Your task to perform on an android device: change the clock style Image 0: 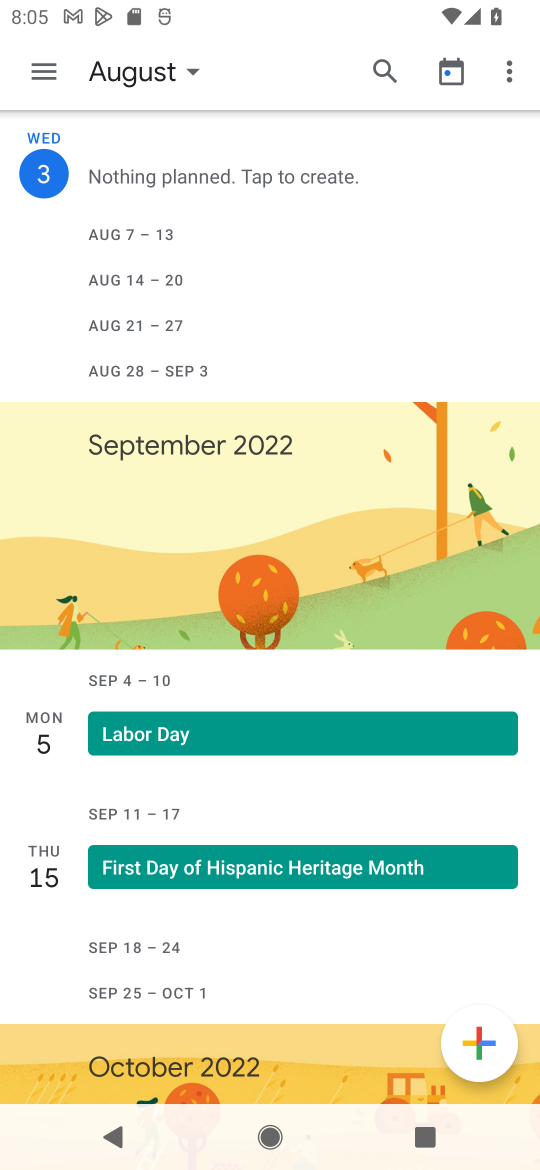
Step 0: press home button
Your task to perform on an android device: change the clock style Image 1: 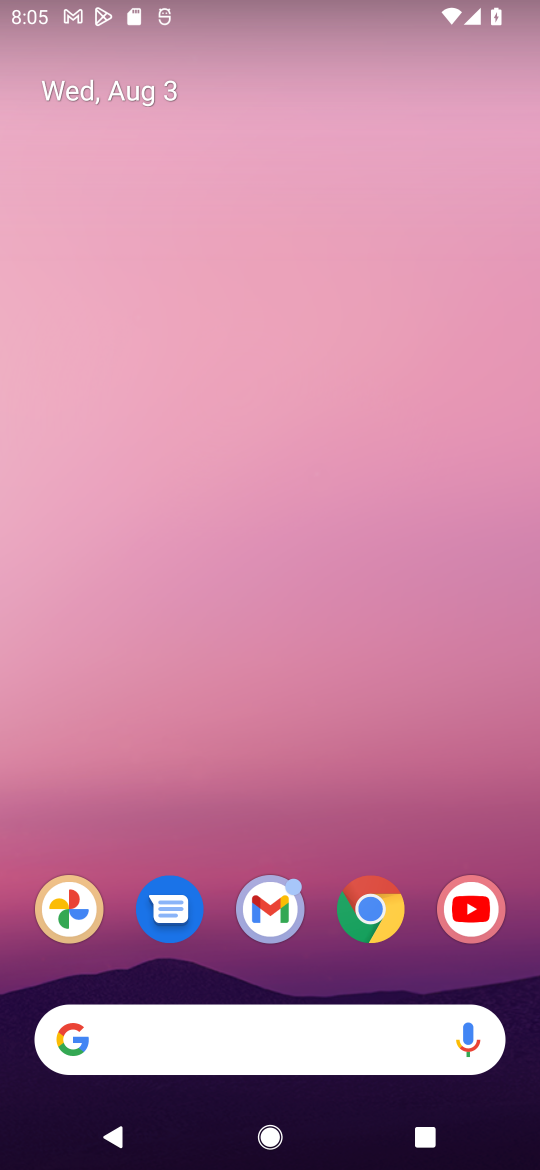
Step 1: drag from (334, 692) to (371, 161)
Your task to perform on an android device: change the clock style Image 2: 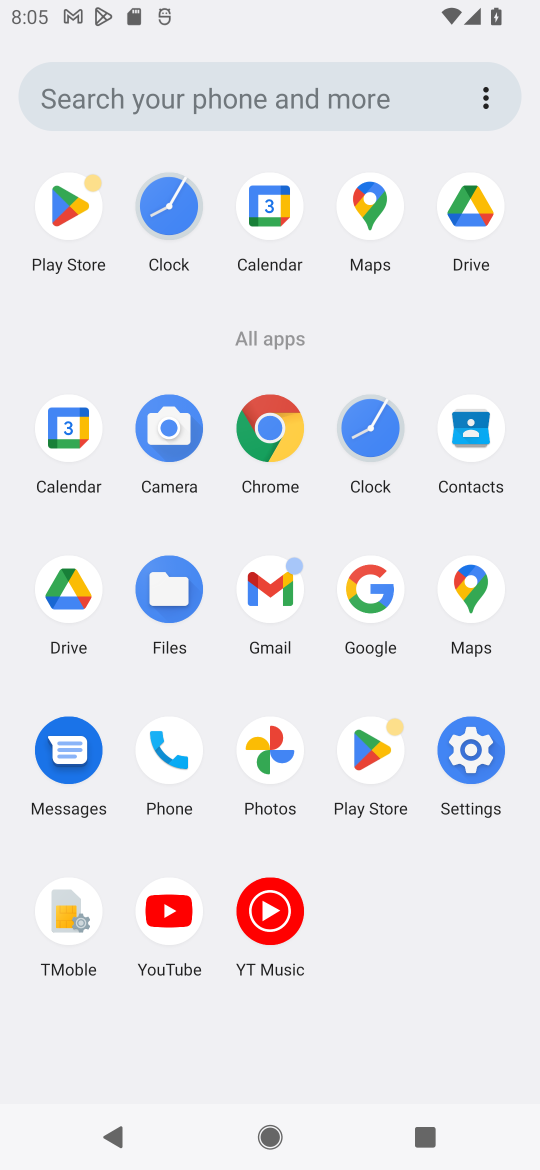
Step 2: click (374, 444)
Your task to perform on an android device: change the clock style Image 3: 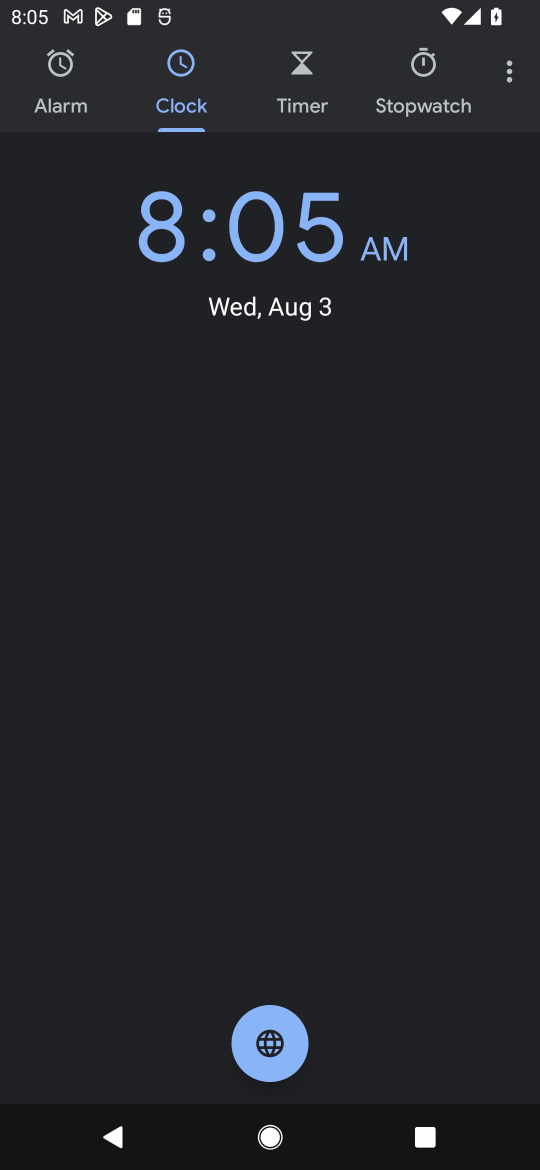
Step 3: click (505, 74)
Your task to perform on an android device: change the clock style Image 4: 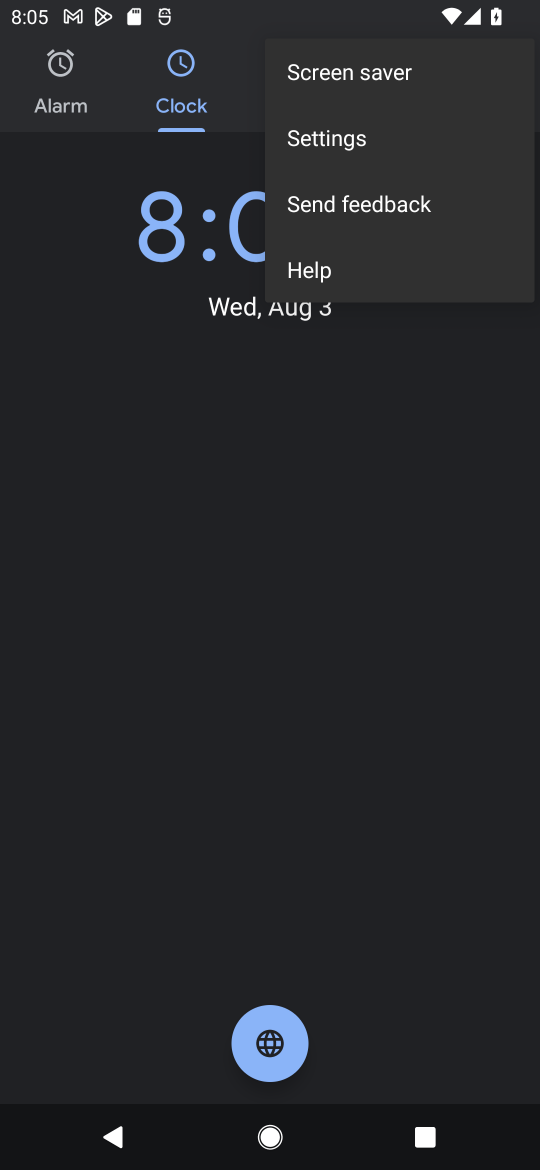
Step 4: click (406, 149)
Your task to perform on an android device: change the clock style Image 5: 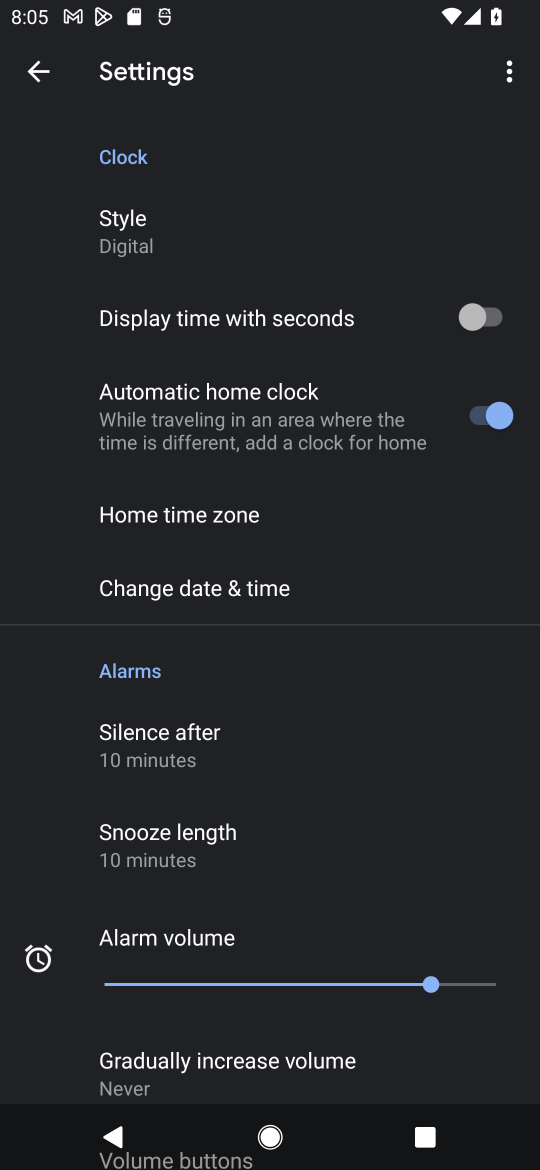
Step 5: drag from (388, 765) to (423, 575)
Your task to perform on an android device: change the clock style Image 6: 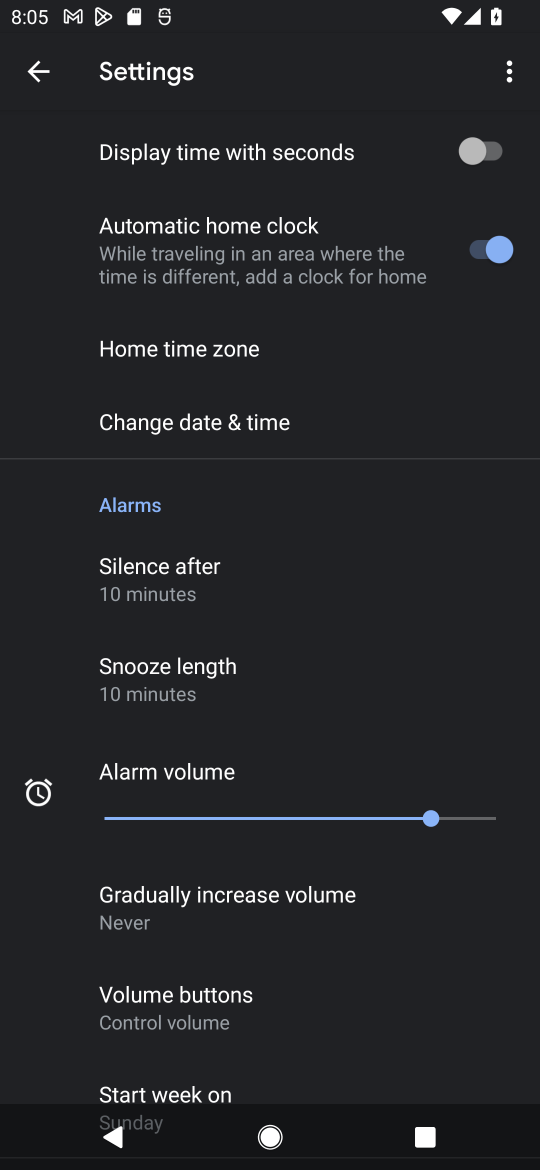
Step 6: drag from (423, 861) to (439, 652)
Your task to perform on an android device: change the clock style Image 7: 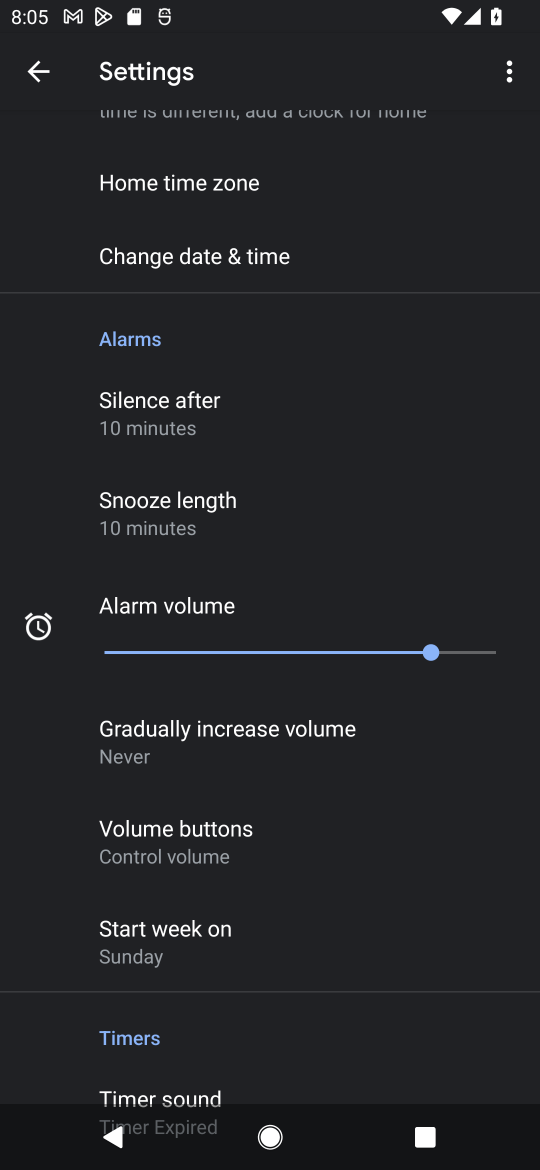
Step 7: drag from (454, 847) to (468, 608)
Your task to perform on an android device: change the clock style Image 8: 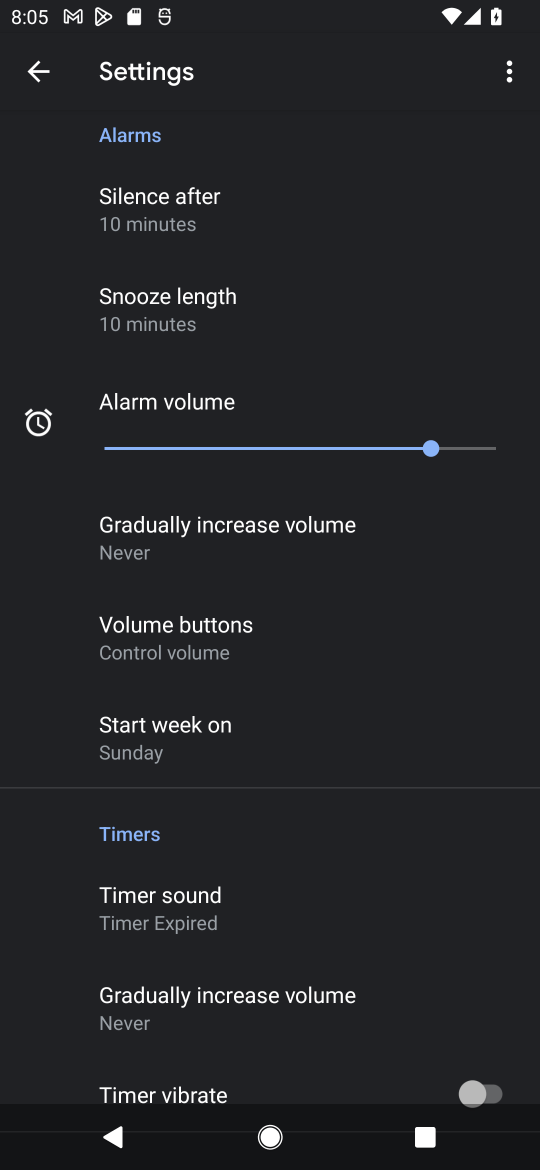
Step 8: drag from (432, 860) to (422, 695)
Your task to perform on an android device: change the clock style Image 9: 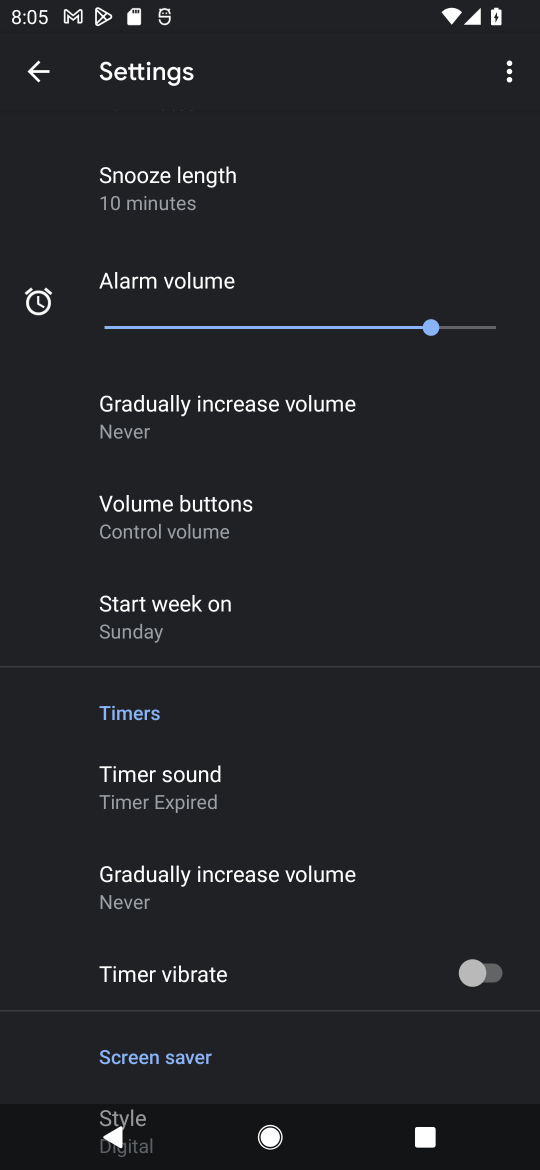
Step 9: drag from (370, 946) to (395, 685)
Your task to perform on an android device: change the clock style Image 10: 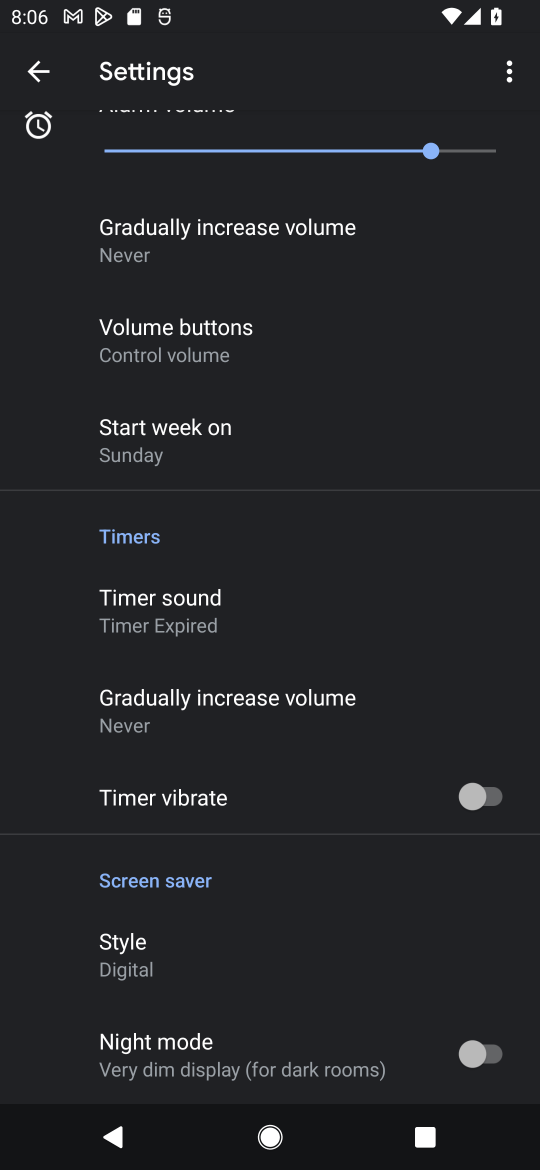
Step 10: drag from (395, 534) to (398, 708)
Your task to perform on an android device: change the clock style Image 11: 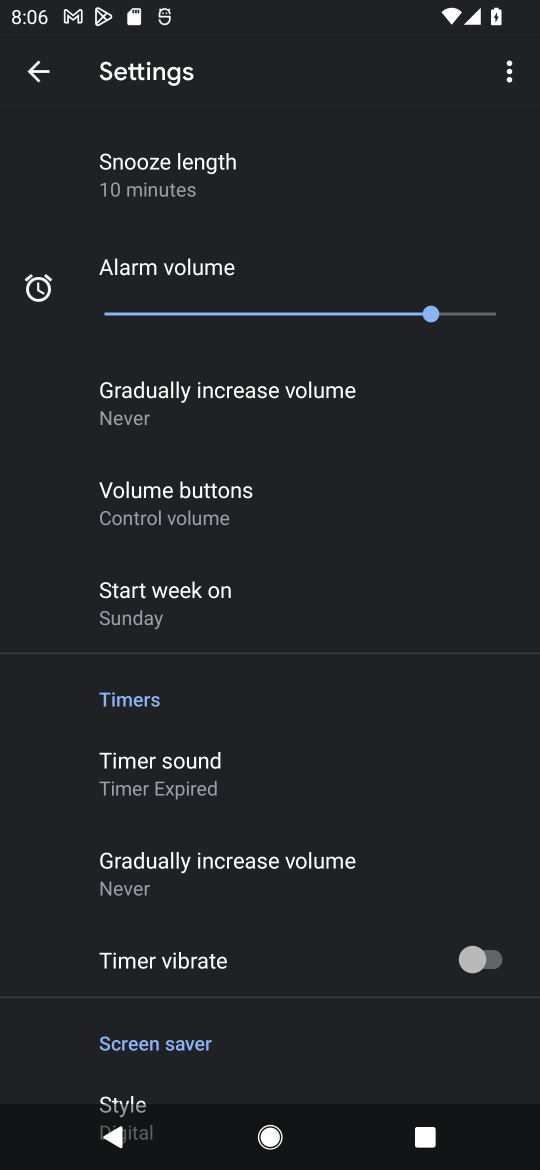
Step 11: drag from (389, 427) to (375, 650)
Your task to perform on an android device: change the clock style Image 12: 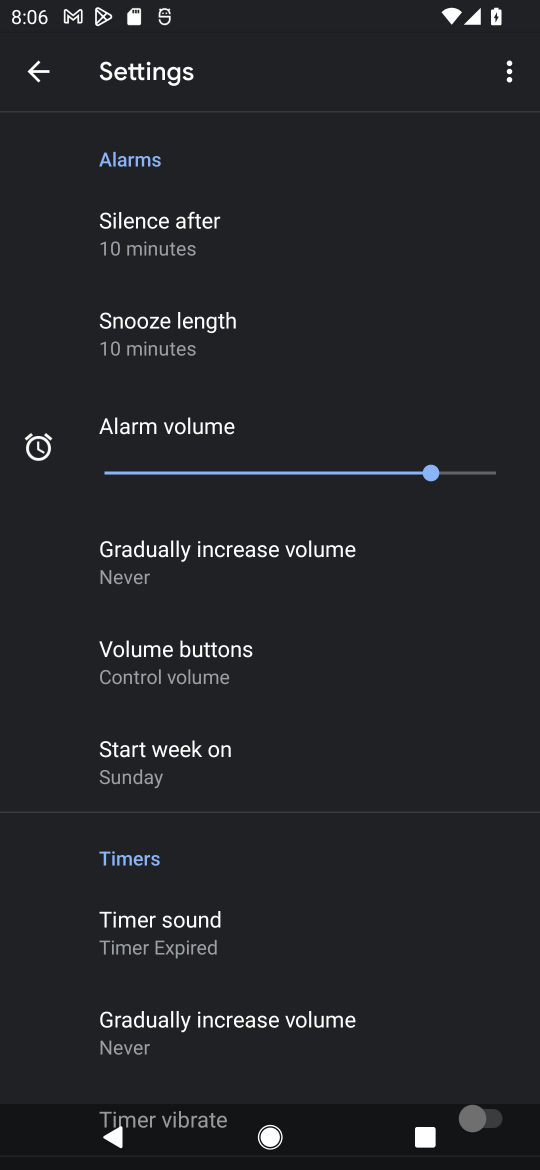
Step 12: drag from (349, 314) to (343, 651)
Your task to perform on an android device: change the clock style Image 13: 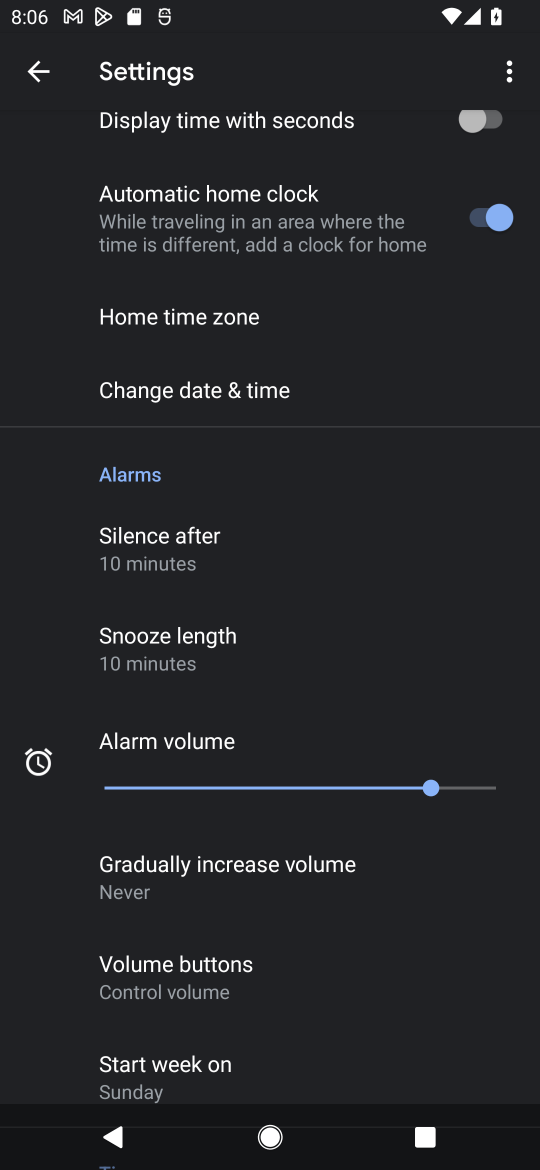
Step 13: drag from (356, 311) to (370, 691)
Your task to perform on an android device: change the clock style Image 14: 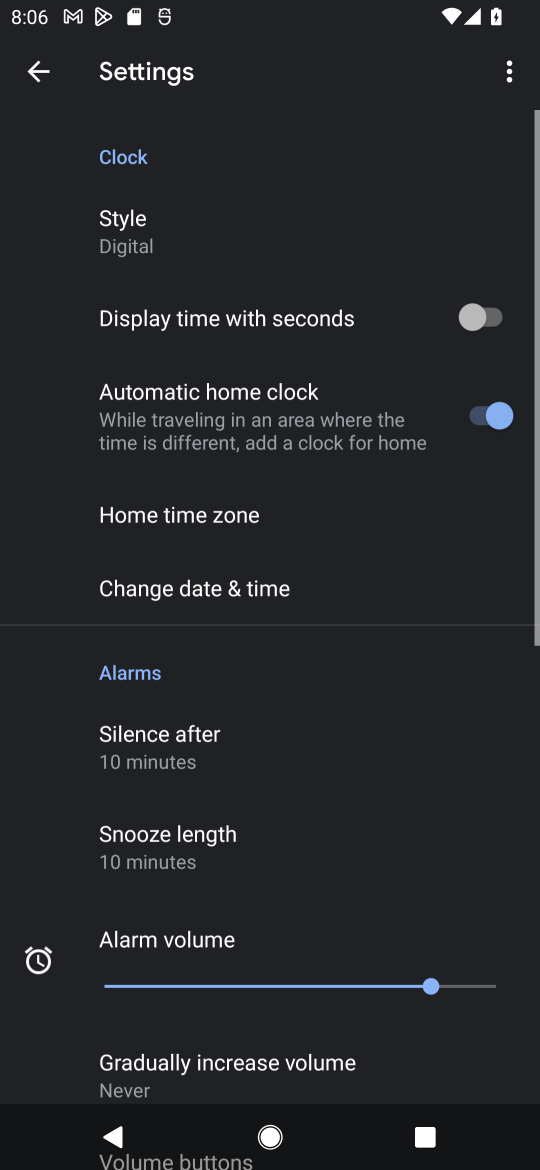
Step 14: click (205, 240)
Your task to perform on an android device: change the clock style Image 15: 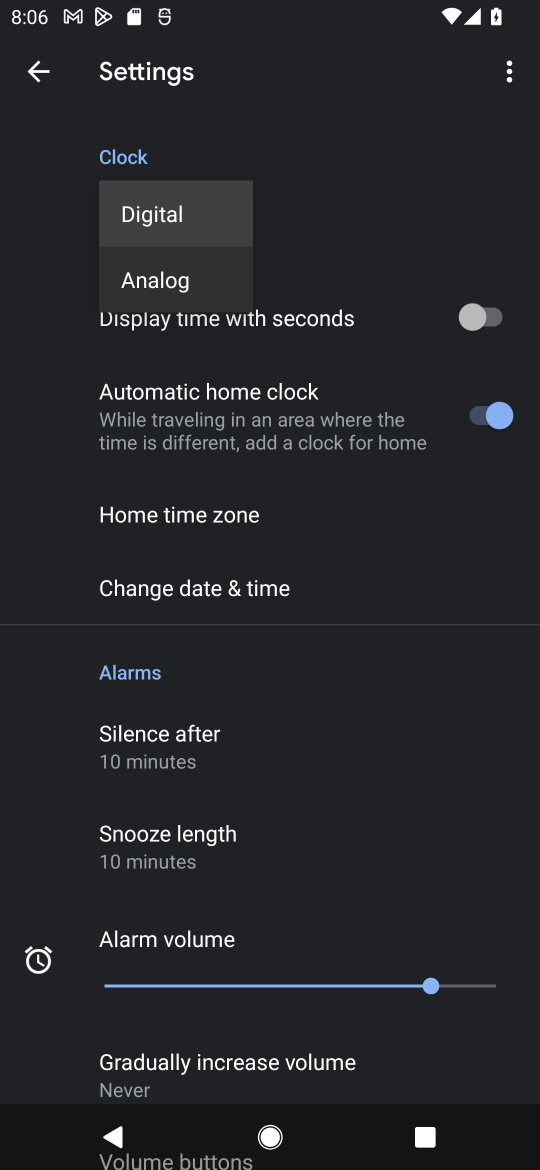
Step 15: click (193, 291)
Your task to perform on an android device: change the clock style Image 16: 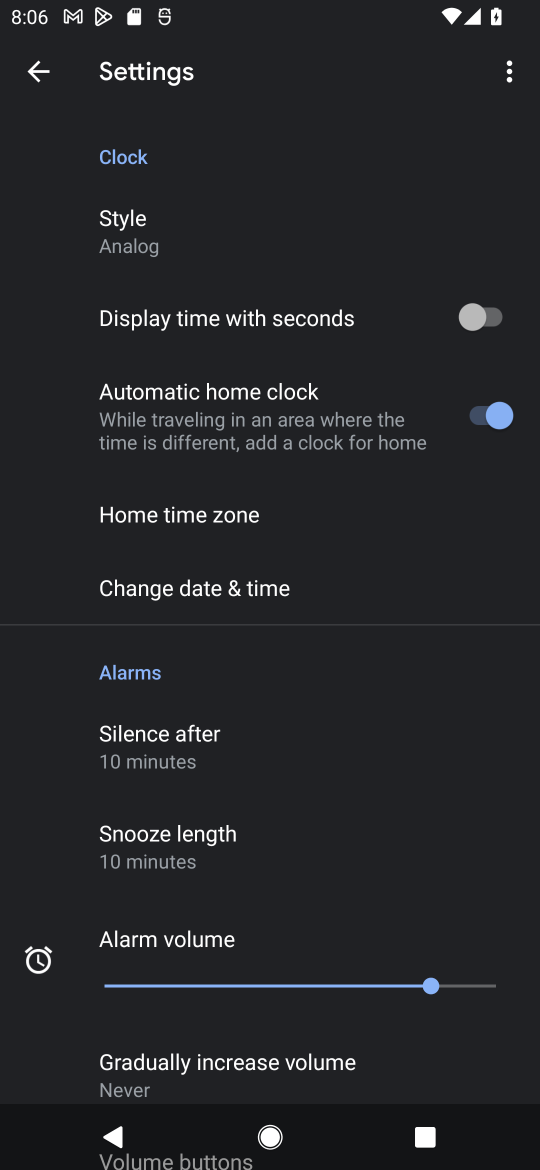
Step 16: task complete